Your task to perform on an android device: toggle priority inbox in the gmail app Image 0: 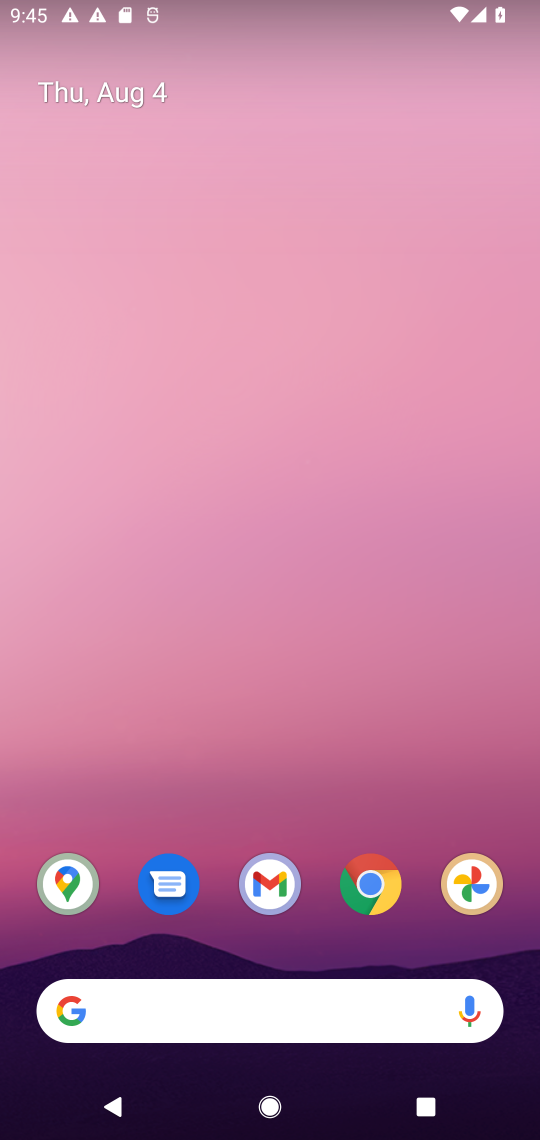
Step 0: drag from (250, 780) to (159, 458)
Your task to perform on an android device: toggle priority inbox in the gmail app Image 1: 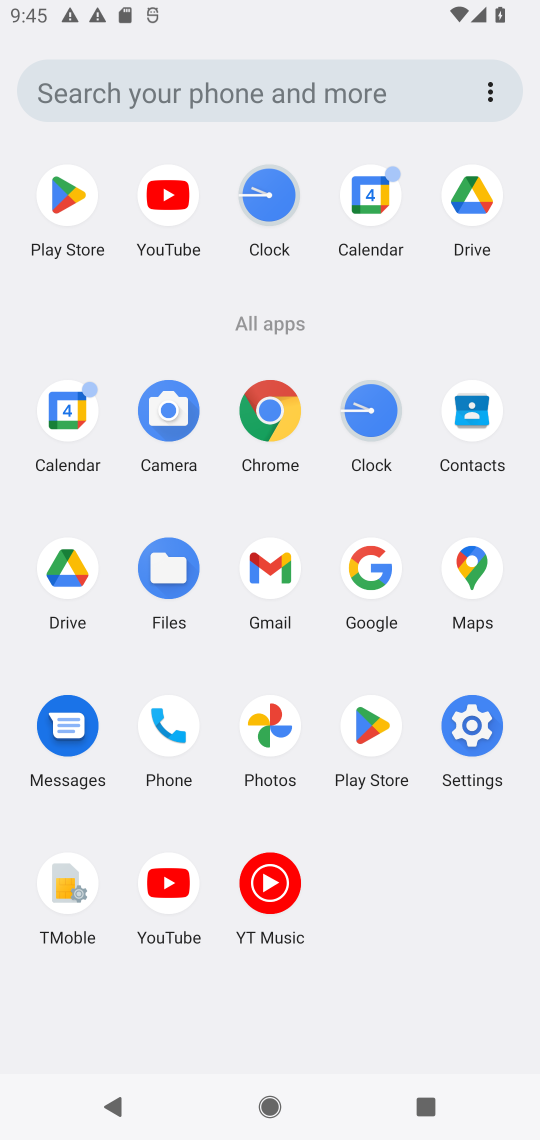
Step 1: click (256, 583)
Your task to perform on an android device: toggle priority inbox in the gmail app Image 2: 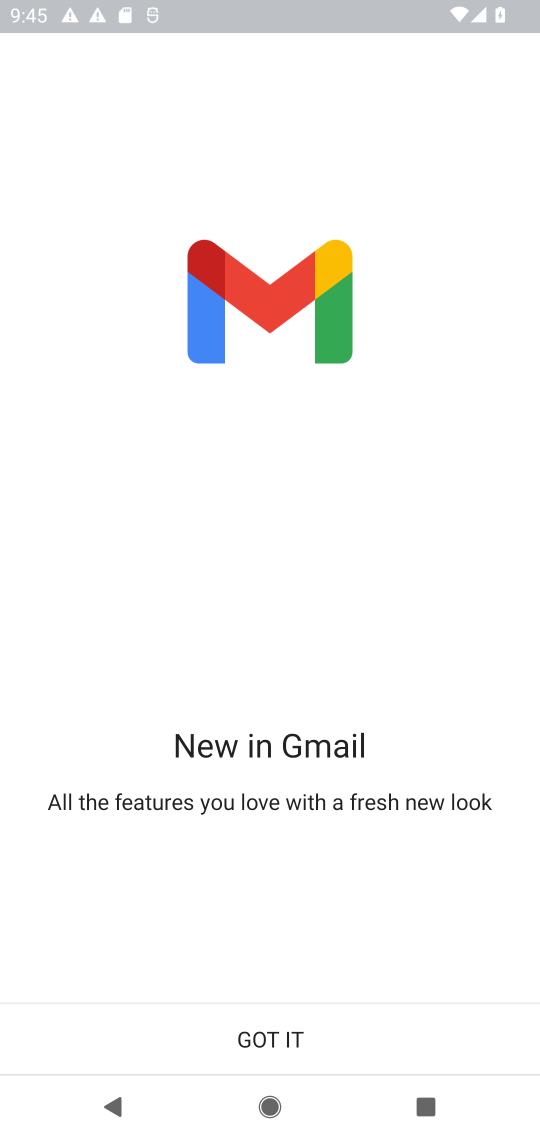
Step 2: click (282, 1022)
Your task to perform on an android device: toggle priority inbox in the gmail app Image 3: 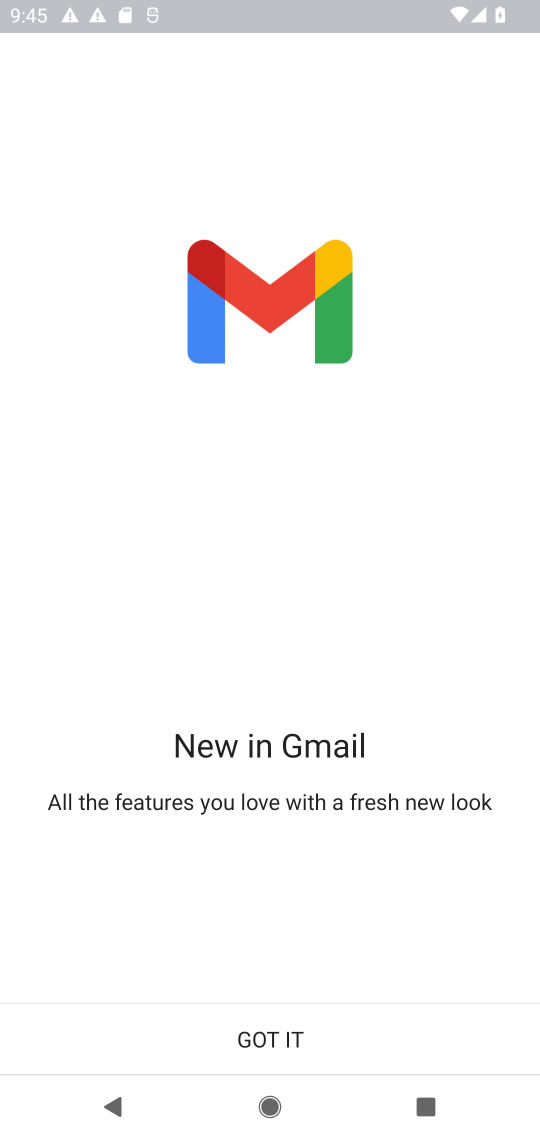
Step 3: click (286, 1021)
Your task to perform on an android device: toggle priority inbox in the gmail app Image 4: 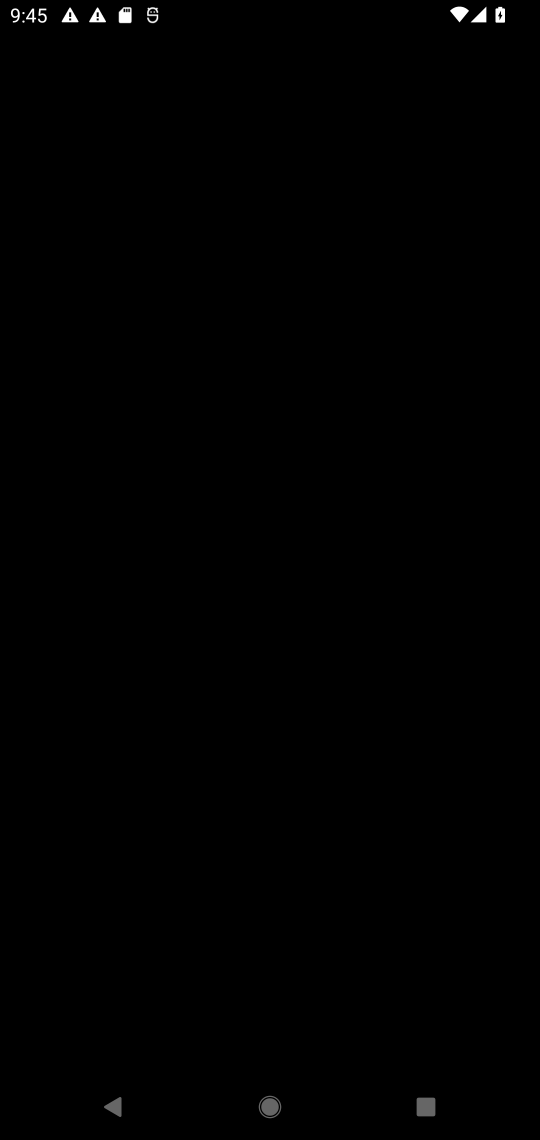
Step 4: click (286, 1021)
Your task to perform on an android device: toggle priority inbox in the gmail app Image 5: 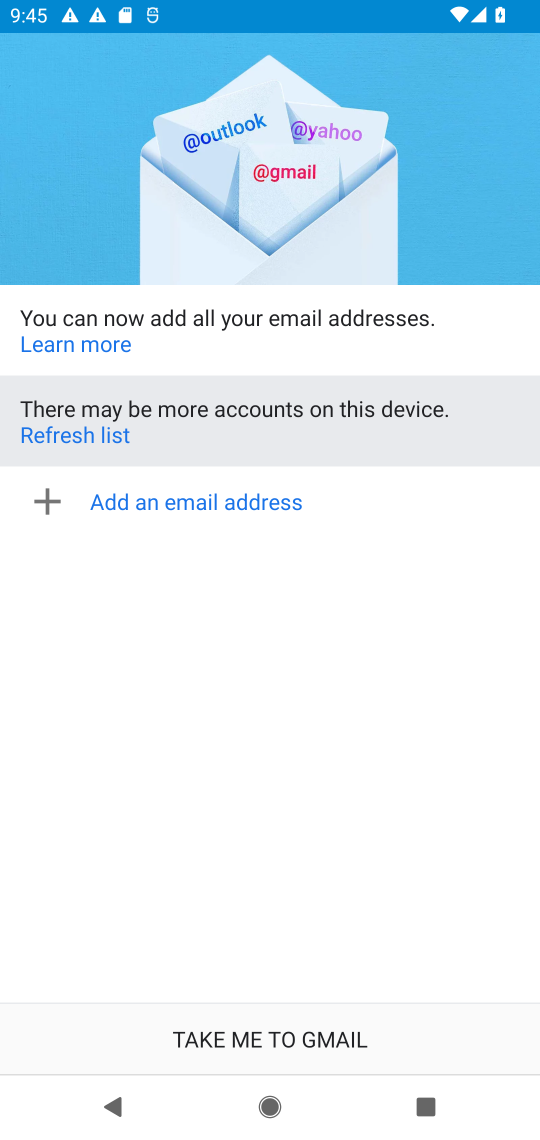
Step 5: click (293, 1035)
Your task to perform on an android device: toggle priority inbox in the gmail app Image 6: 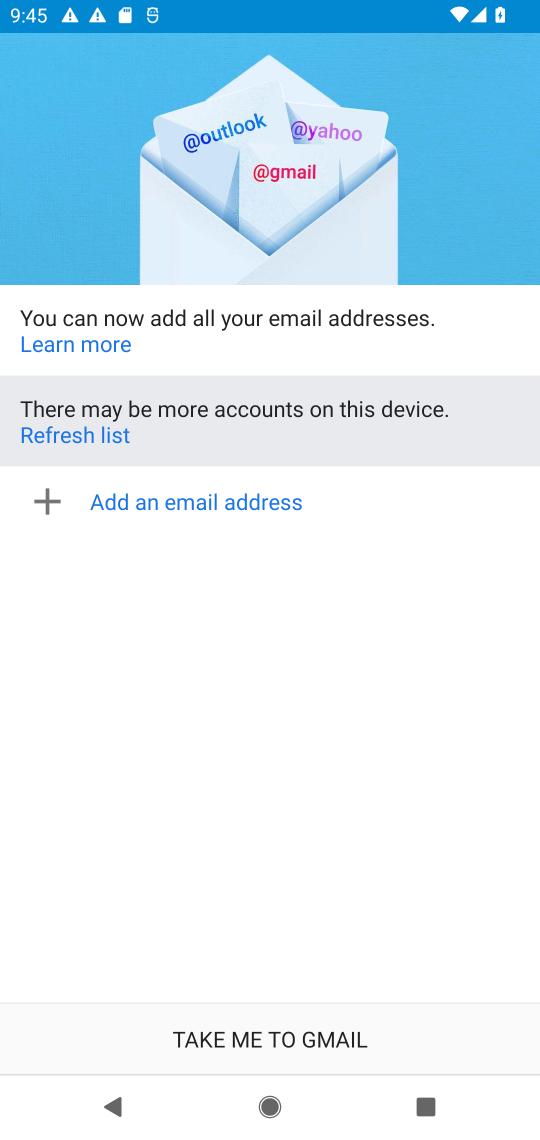
Step 6: click (293, 1028)
Your task to perform on an android device: toggle priority inbox in the gmail app Image 7: 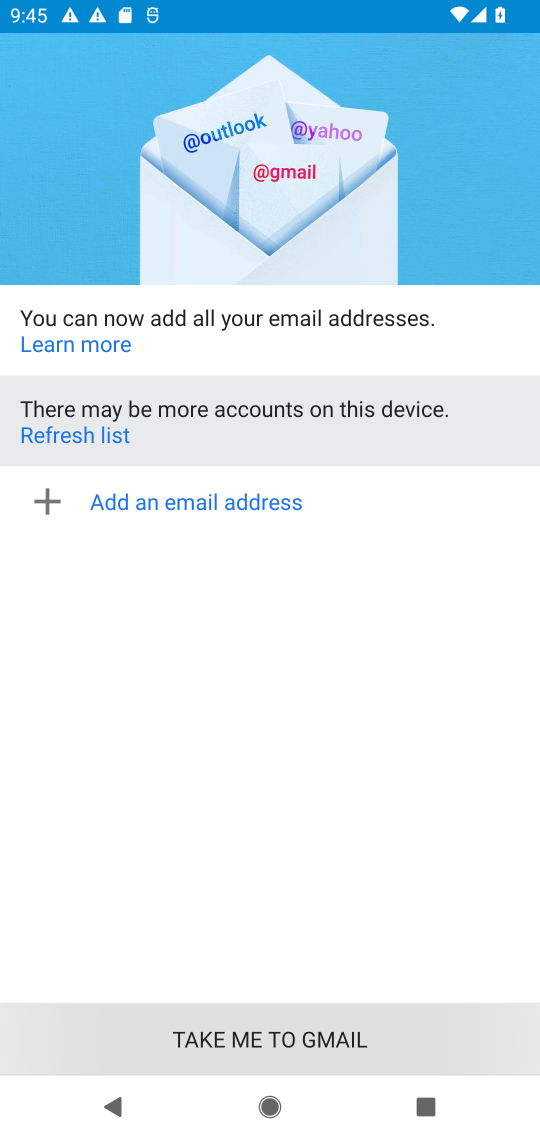
Step 7: click (293, 1028)
Your task to perform on an android device: toggle priority inbox in the gmail app Image 8: 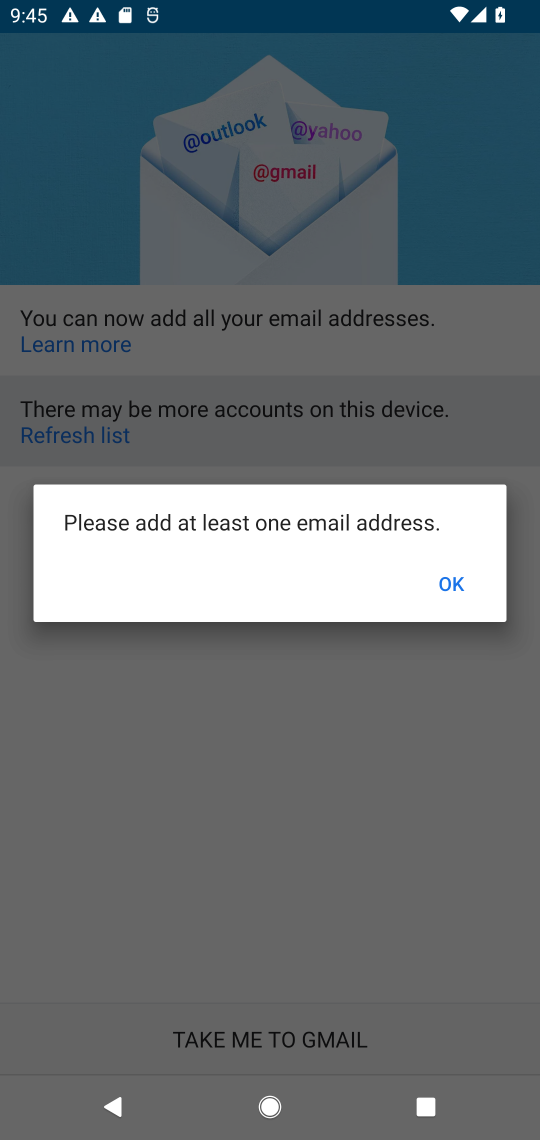
Step 8: click (438, 593)
Your task to perform on an android device: toggle priority inbox in the gmail app Image 9: 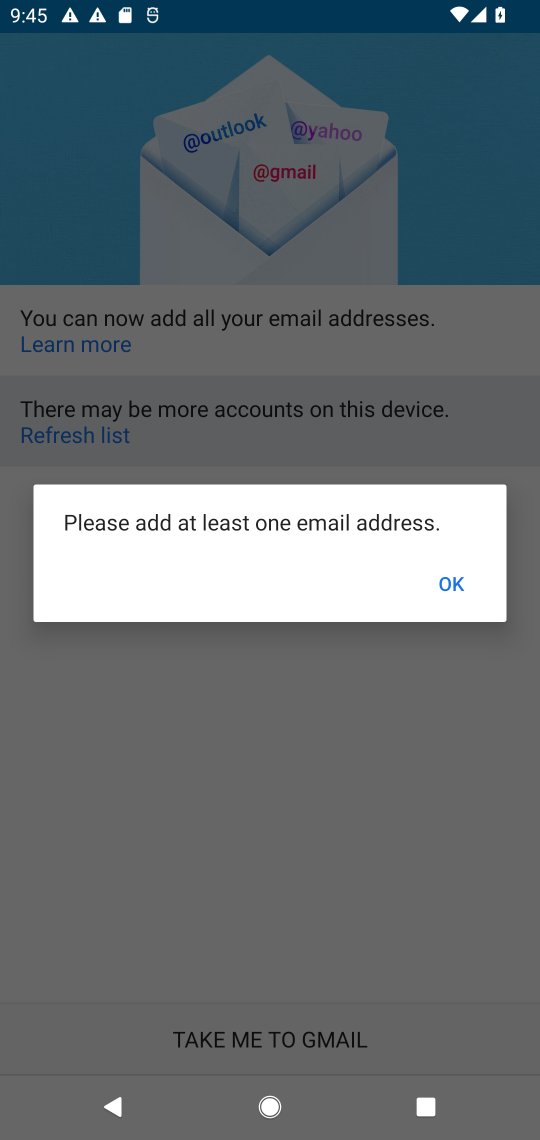
Step 9: click (443, 593)
Your task to perform on an android device: toggle priority inbox in the gmail app Image 10: 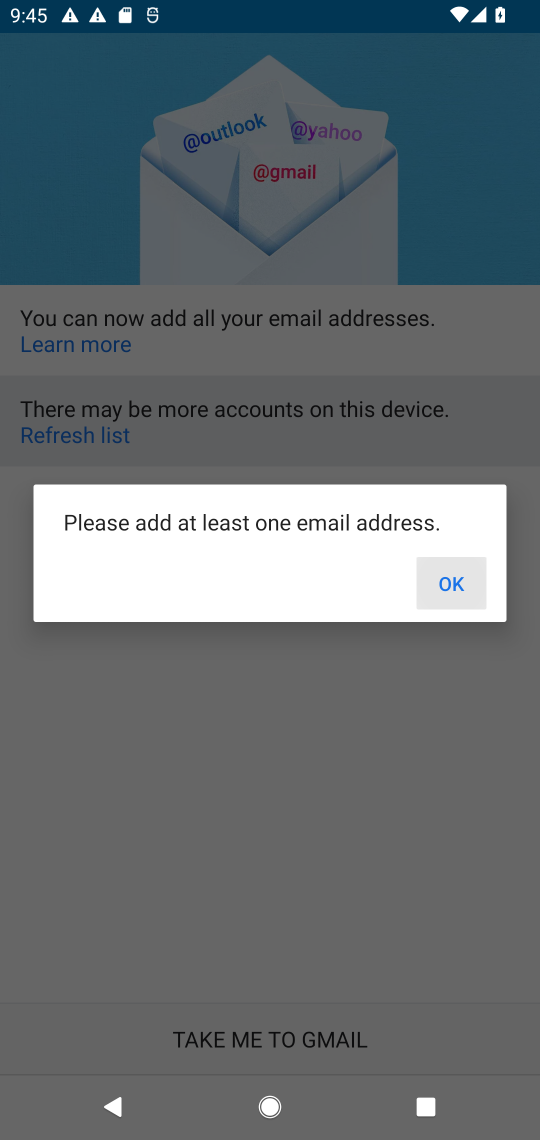
Step 10: click (443, 593)
Your task to perform on an android device: toggle priority inbox in the gmail app Image 11: 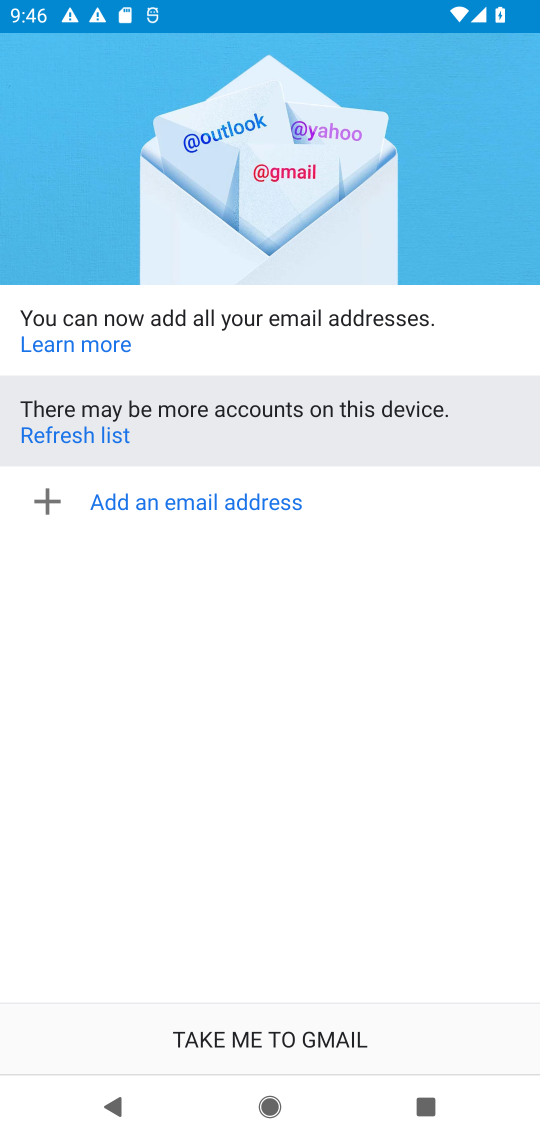
Step 11: click (447, 589)
Your task to perform on an android device: toggle priority inbox in the gmail app Image 12: 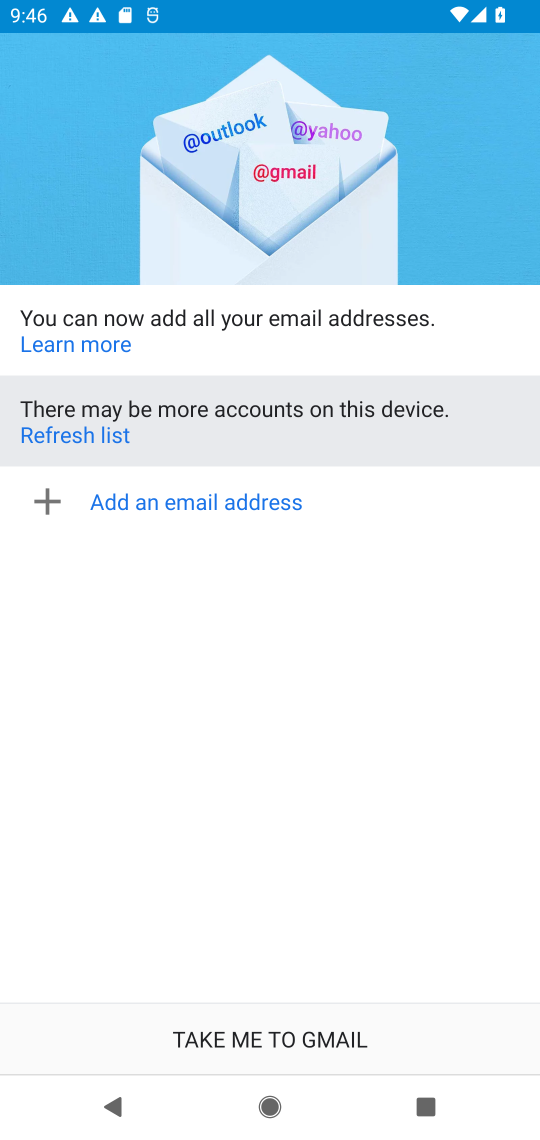
Step 12: click (240, 1028)
Your task to perform on an android device: toggle priority inbox in the gmail app Image 13: 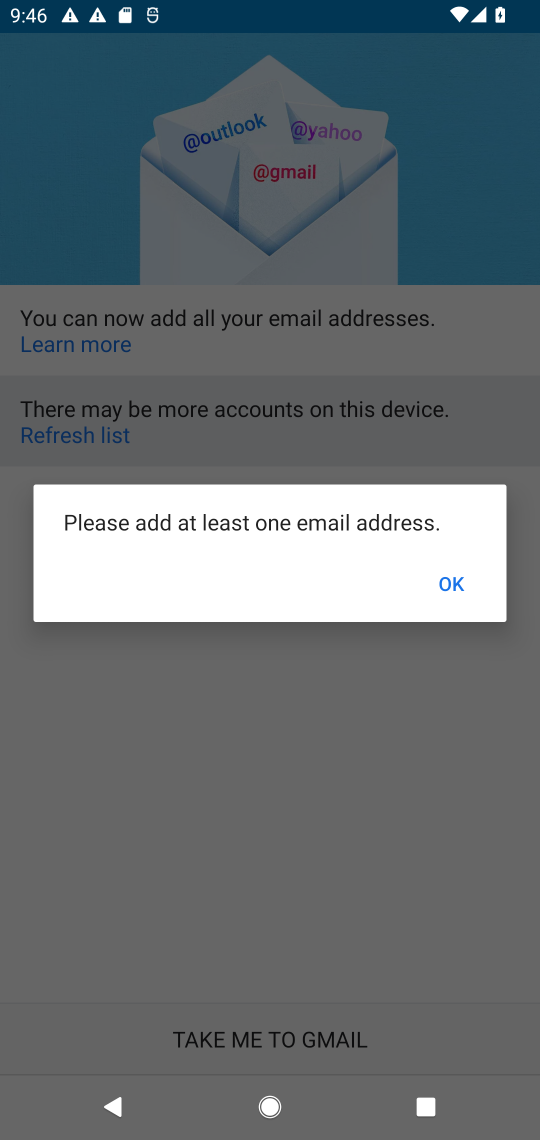
Step 13: click (461, 578)
Your task to perform on an android device: toggle priority inbox in the gmail app Image 14: 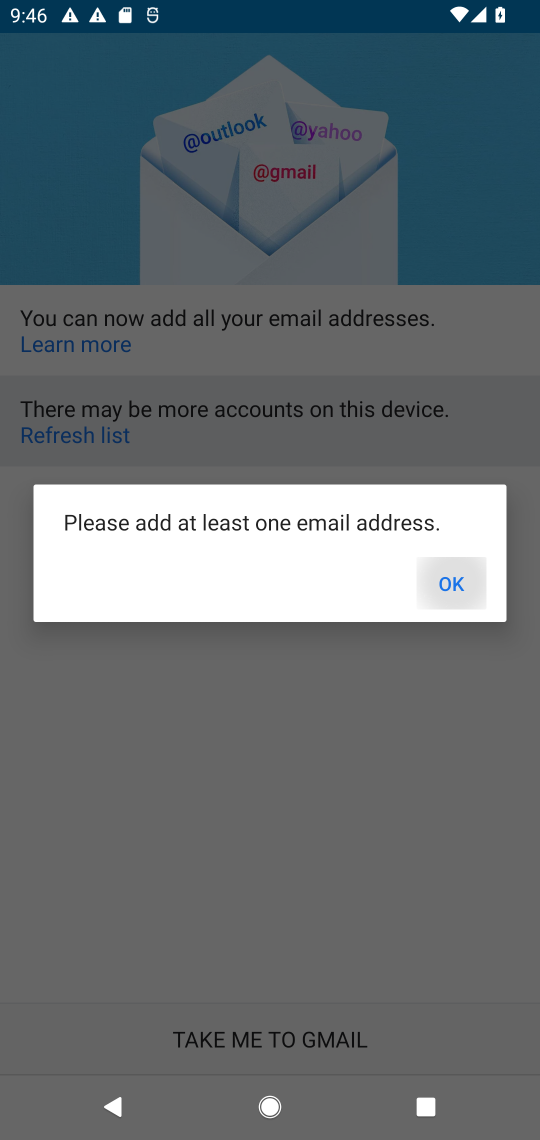
Step 14: click (461, 578)
Your task to perform on an android device: toggle priority inbox in the gmail app Image 15: 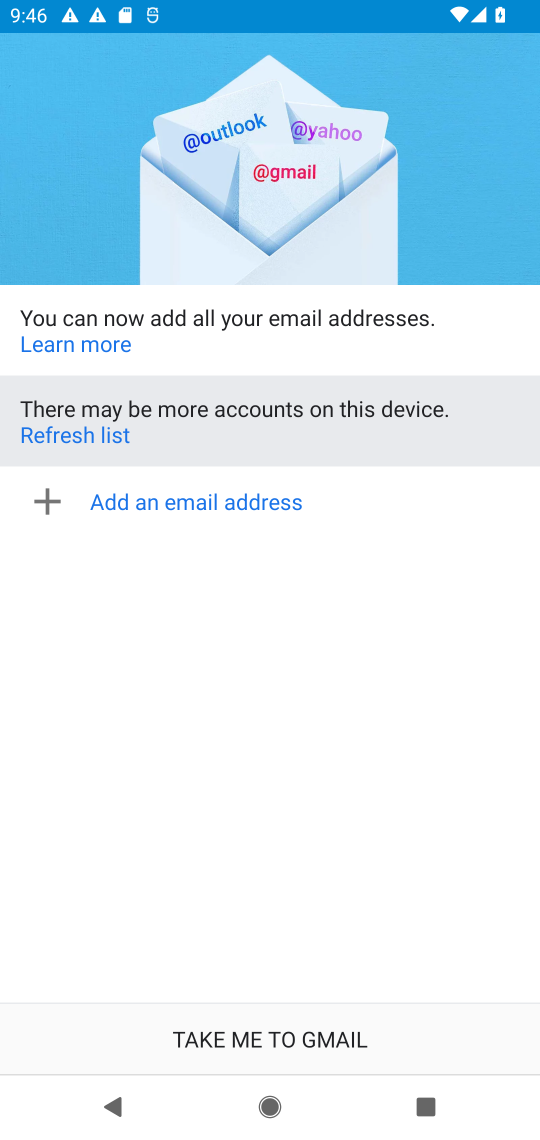
Step 15: click (461, 578)
Your task to perform on an android device: toggle priority inbox in the gmail app Image 16: 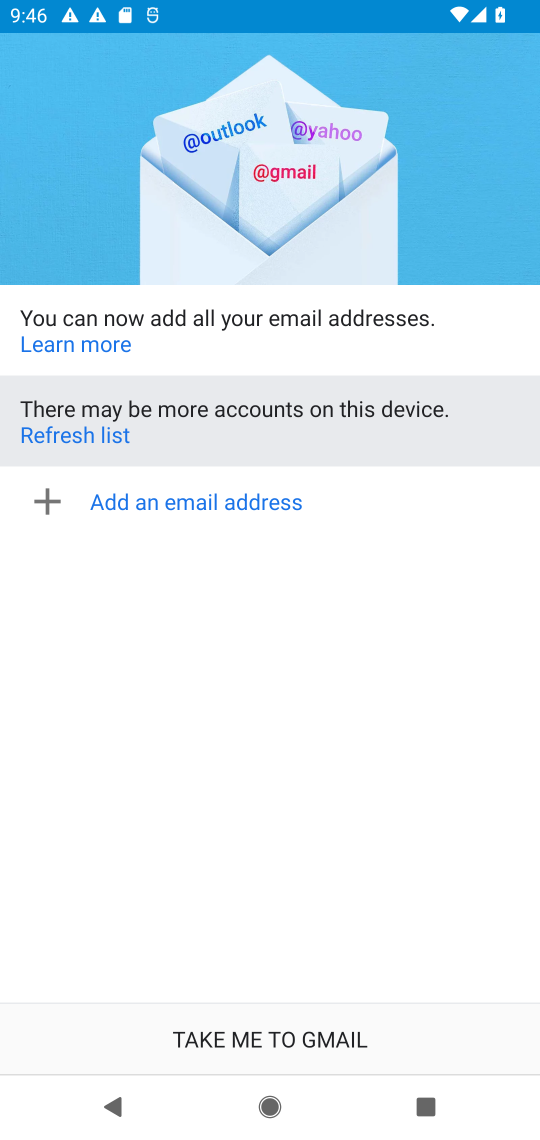
Step 16: task complete